Your task to perform on an android device: turn off improve location accuracy Image 0: 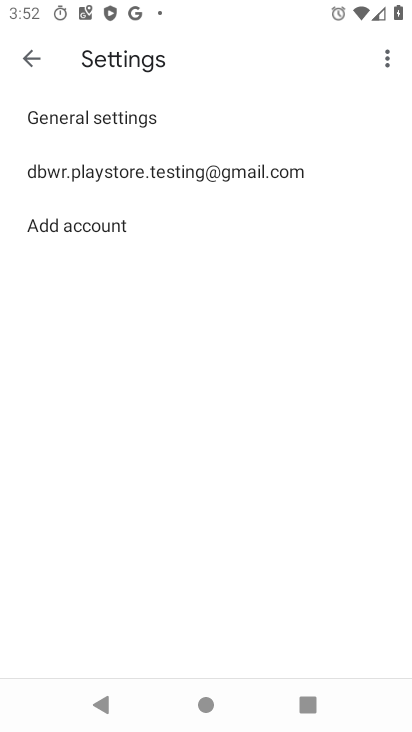
Step 0: press home button
Your task to perform on an android device: turn off improve location accuracy Image 1: 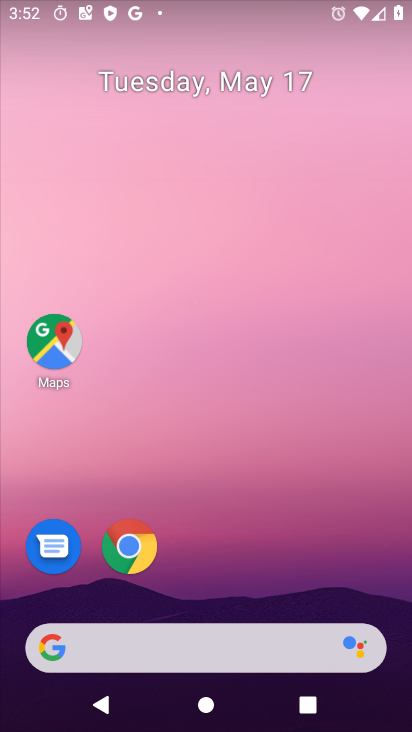
Step 1: drag from (399, 606) to (408, 327)
Your task to perform on an android device: turn off improve location accuracy Image 2: 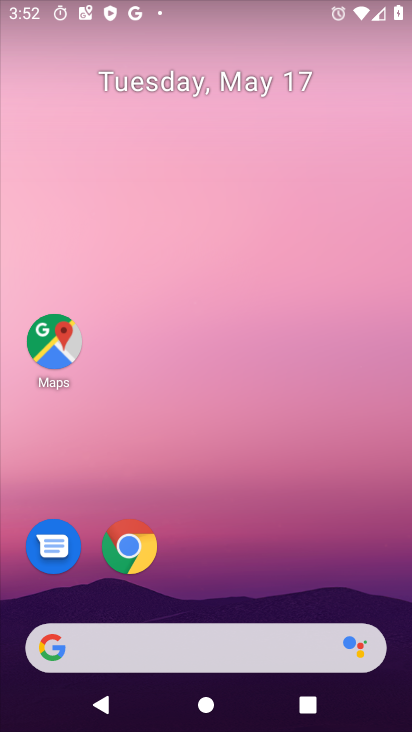
Step 2: drag from (403, 650) to (336, 165)
Your task to perform on an android device: turn off improve location accuracy Image 3: 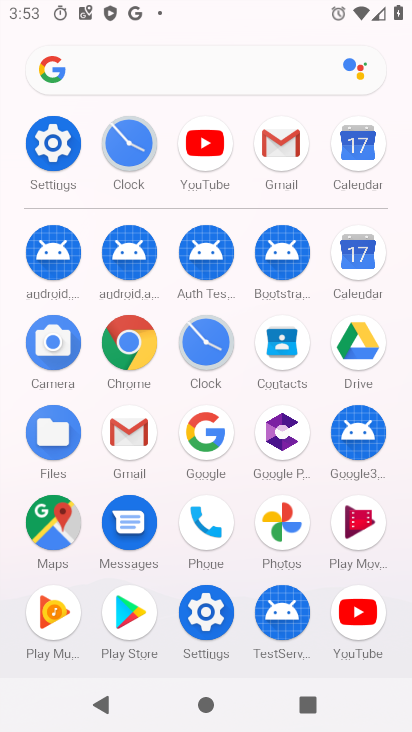
Step 3: click (51, 142)
Your task to perform on an android device: turn off improve location accuracy Image 4: 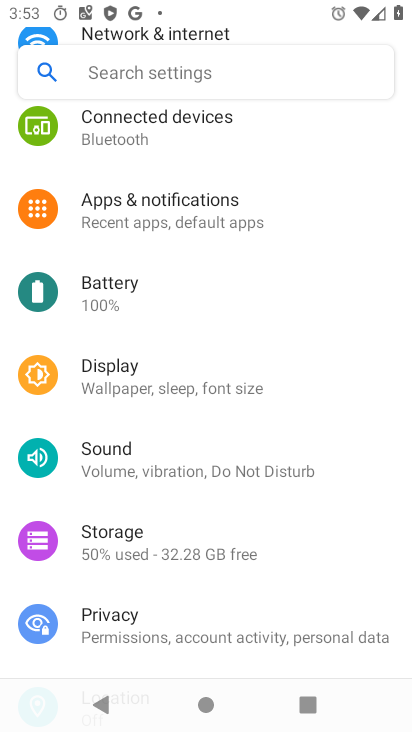
Step 4: drag from (368, 592) to (382, 329)
Your task to perform on an android device: turn off improve location accuracy Image 5: 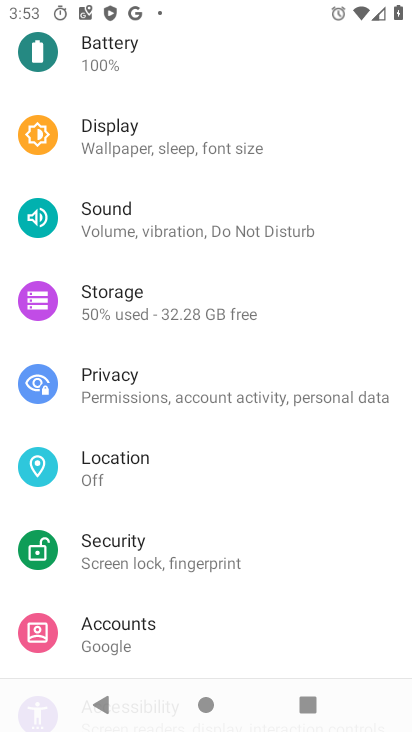
Step 5: click (116, 469)
Your task to perform on an android device: turn off improve location accuracy Image 6: 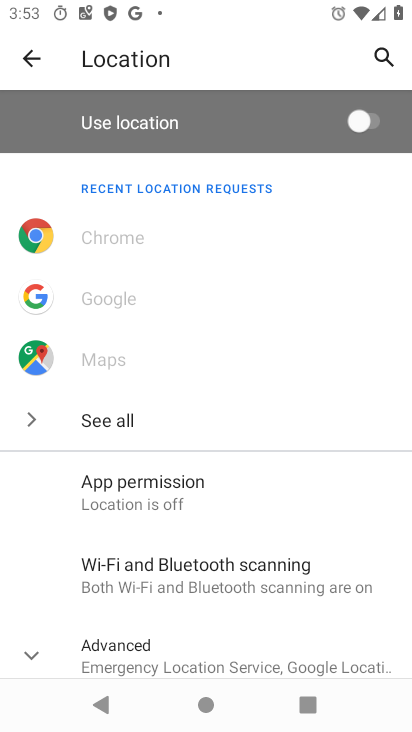
Step 6: drag from (368, 560) to (352, 304)
Your task to perform on an android device: turn off improve location accuracy Image 7: 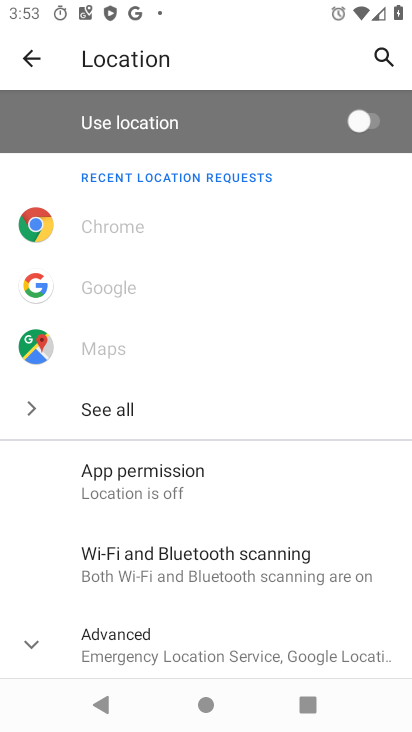
Step 7: click (30, 647)
Your task to perform on an android device: turn off improve location accuracy Image 8: 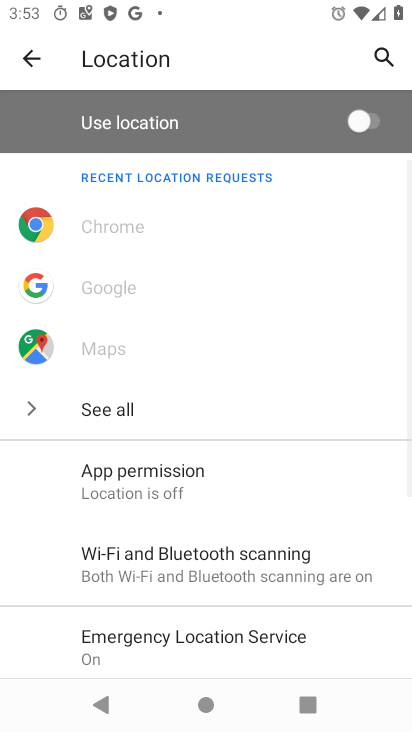
Step 8: drag from (366, 657) to (389, 316)
Your task to perform on an android device: turn off improve location accuracy Image 9: 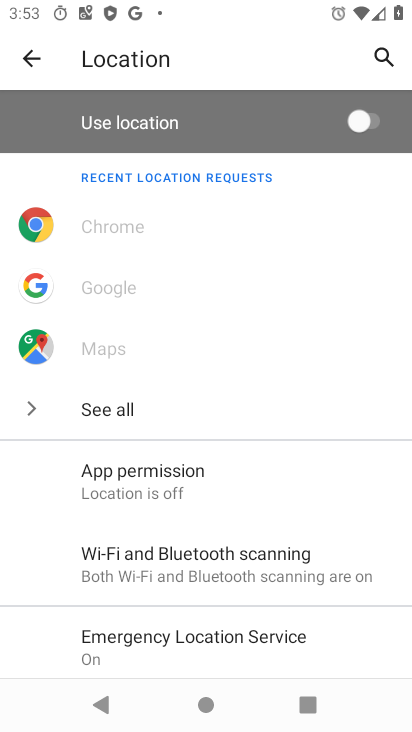
Step 9: drag from (371, 662) to (383, 384)
Your task to perform on an android device: turn off improve location accuracy Image 10: 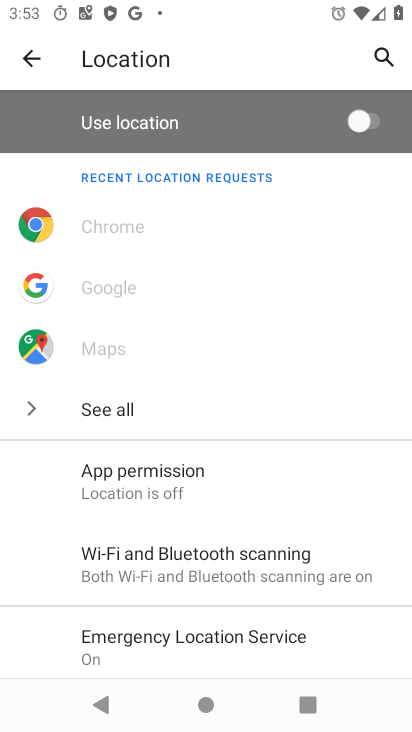
Step 10: drag from (358, 553) to (355, 286)
Your task to perform on an android device: turn off improve location accuracy Image 11: 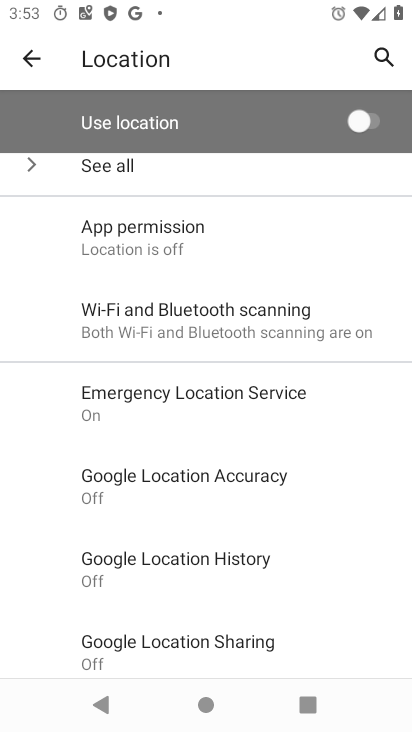
Step 11: click (117, 488)
Your task to perform on an android device: turn off improve location accuracy Image 12: 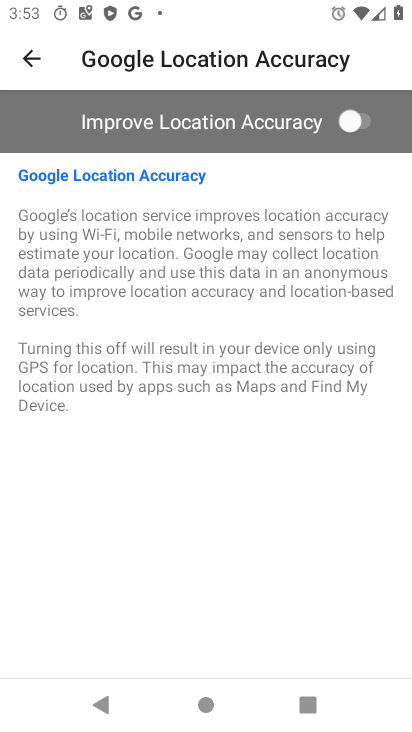
Step 12: task complete